Your task to perform on an android device: Clear all items from cart on ebay. Add "panasonic triple a" to the cart on ebay Image 0: 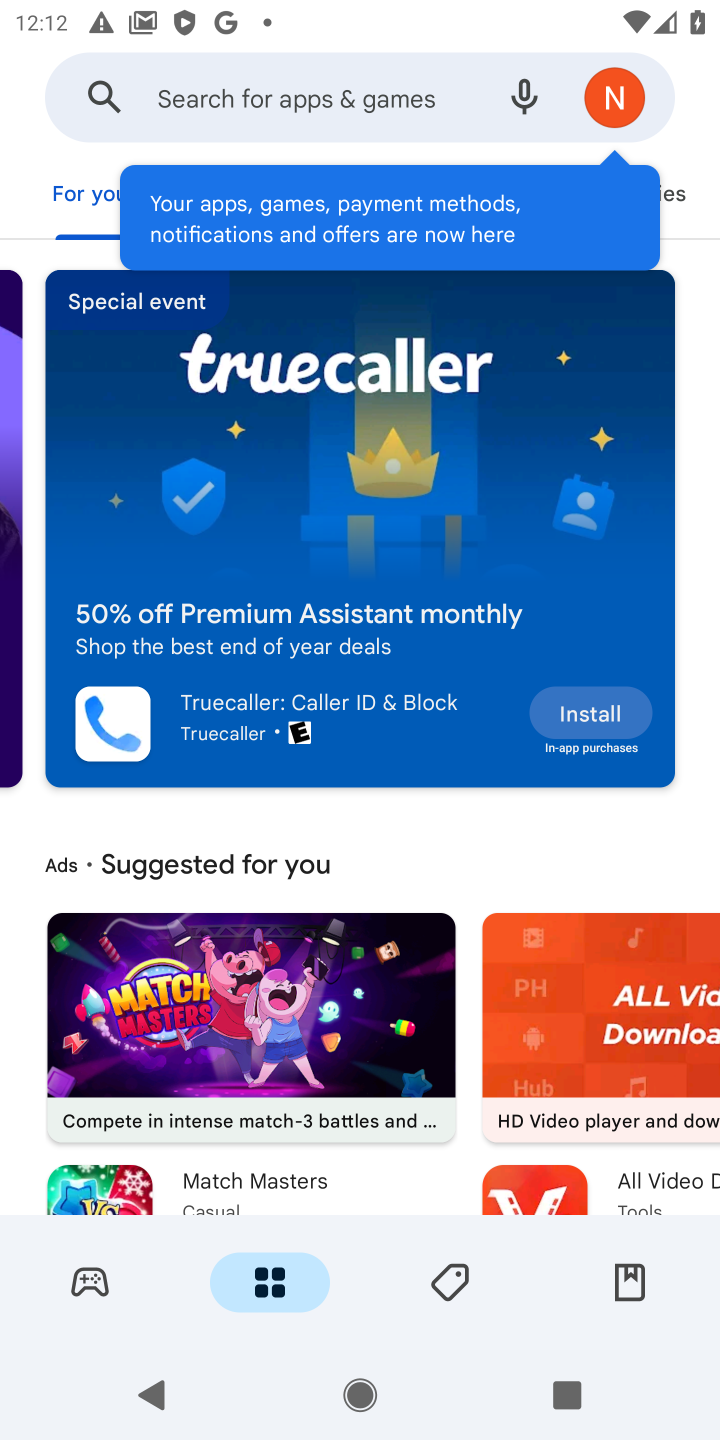
Step 0: press home button
Your task to perform on an android device: Clear all items from cart on ebay. Add "panasonic triple a" to the cart on ebay Image 1: 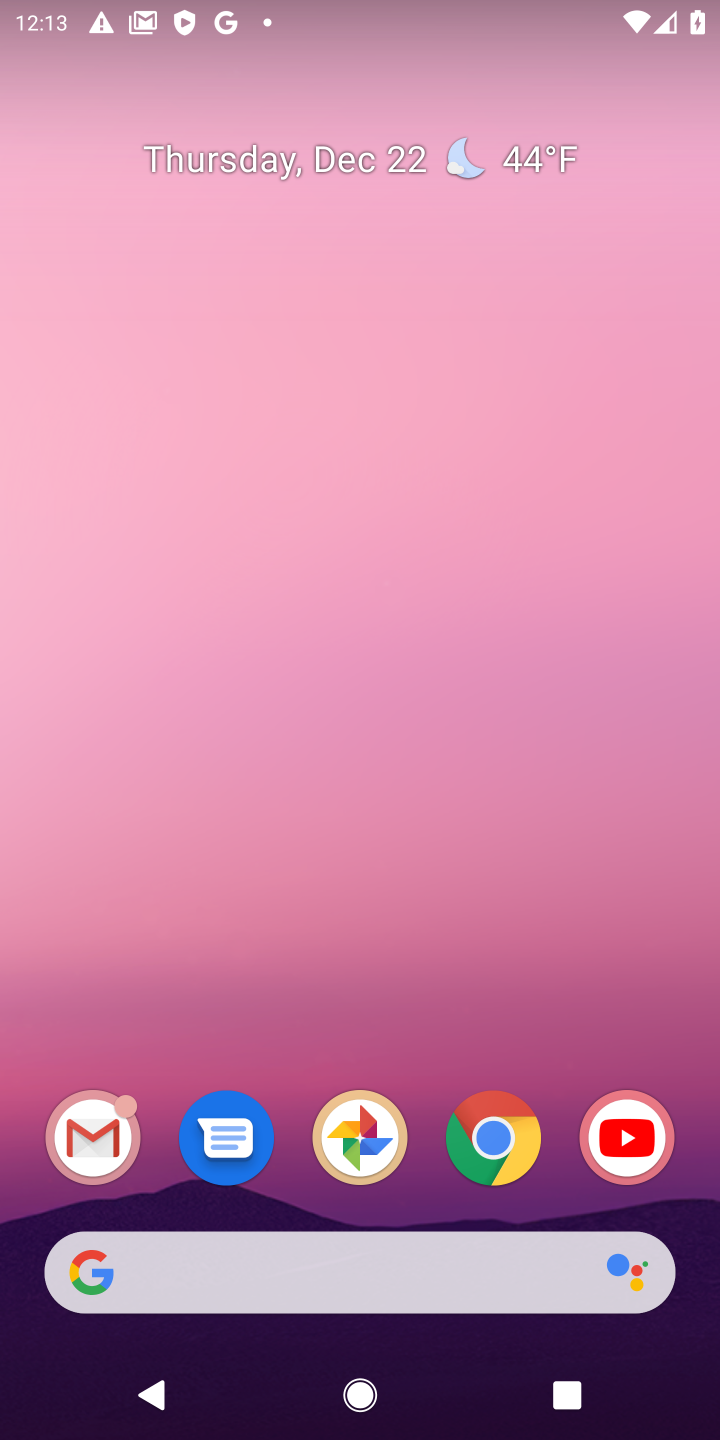
Step 1: click (480, 1170)
Your task to perform on an android device: Clear all items from cart on ebay. Add "panasonic triple a" to the cart on ebay Image 2: 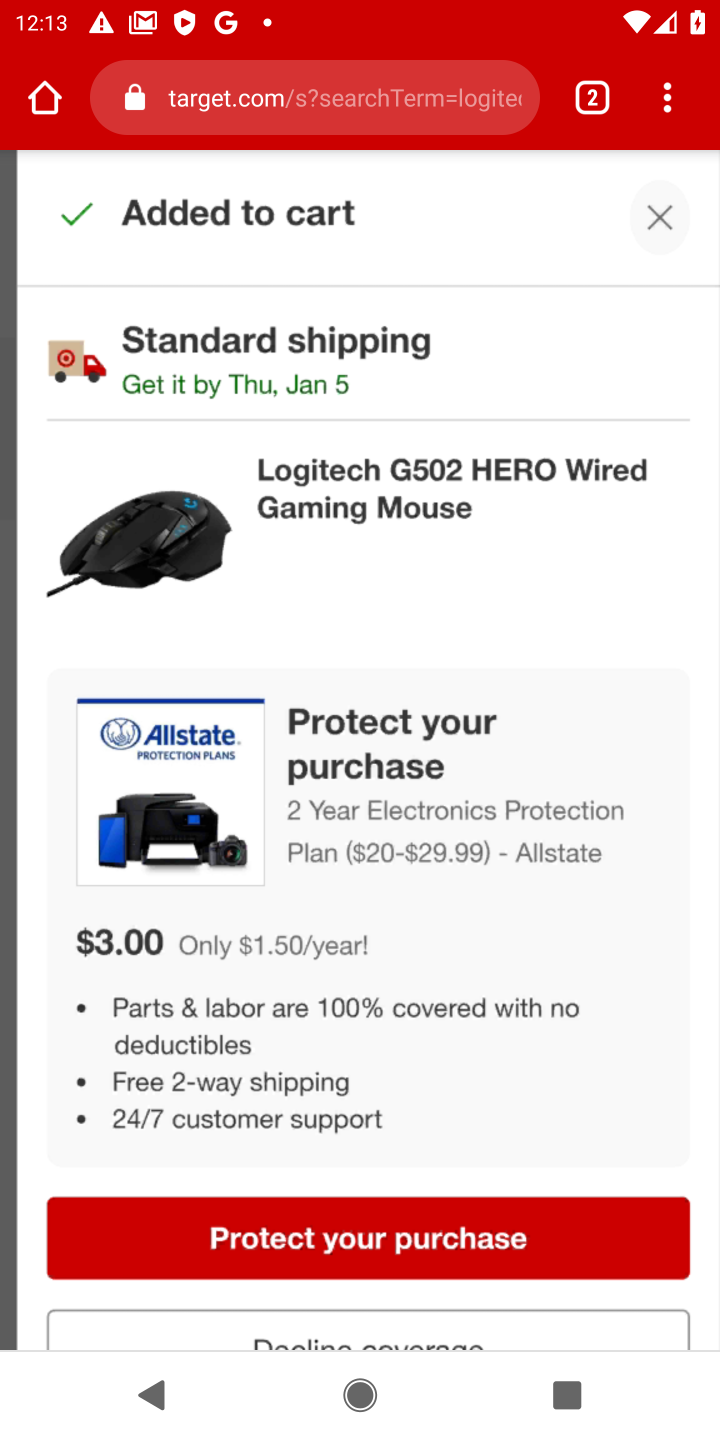
Step 2: click (216, 107)
Your task to perform on an android device: Clear all items from cart on ebay. Add "panasonic triple a" to the cart on ebay Image 3: 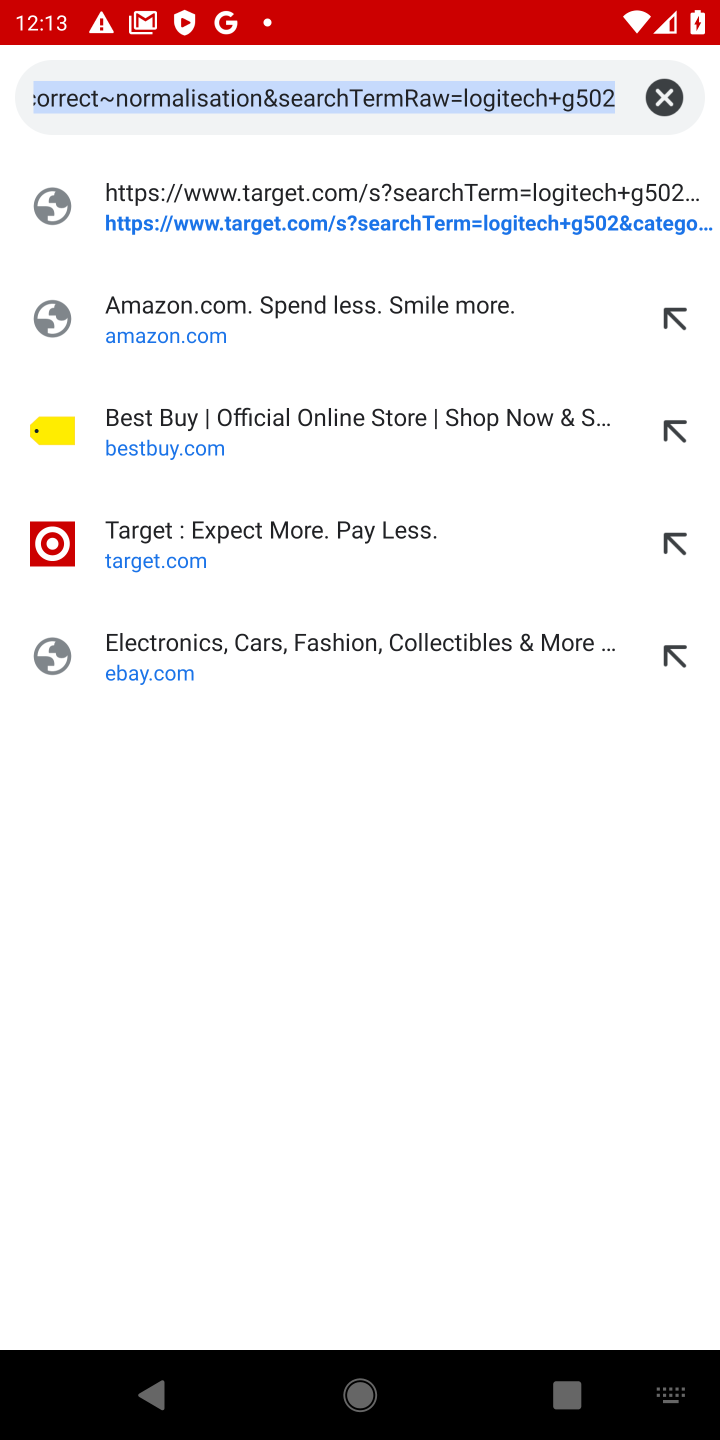
Step 3: click (141, 661)
Your task to perform on an android device: Clear all items from cart on ebay. Add "panasonic triple a" to the cart on ebay Image 4: 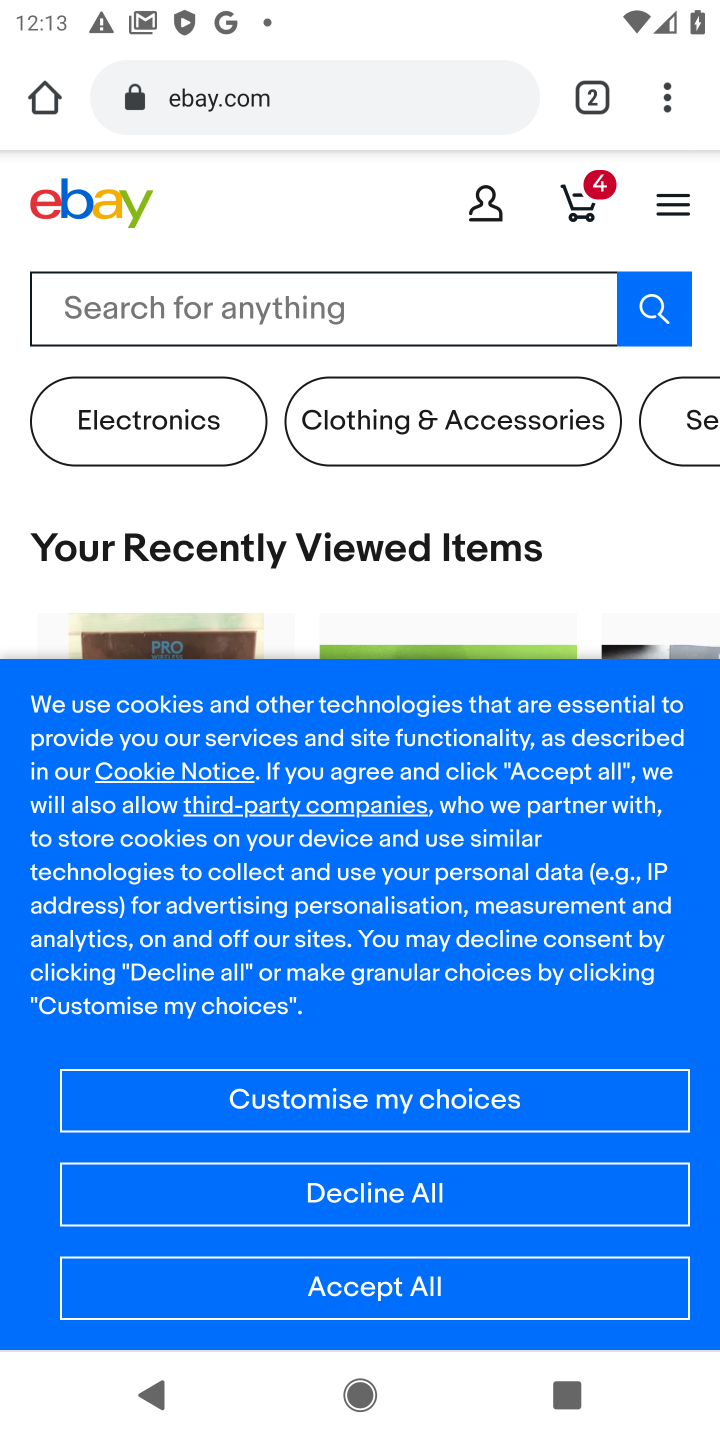
Step 4: click (577, 206)
Your task to perform on an android device: Clear all items from cart on ebay. Add "panasonic triple a" to the cart on ebay Image 5: 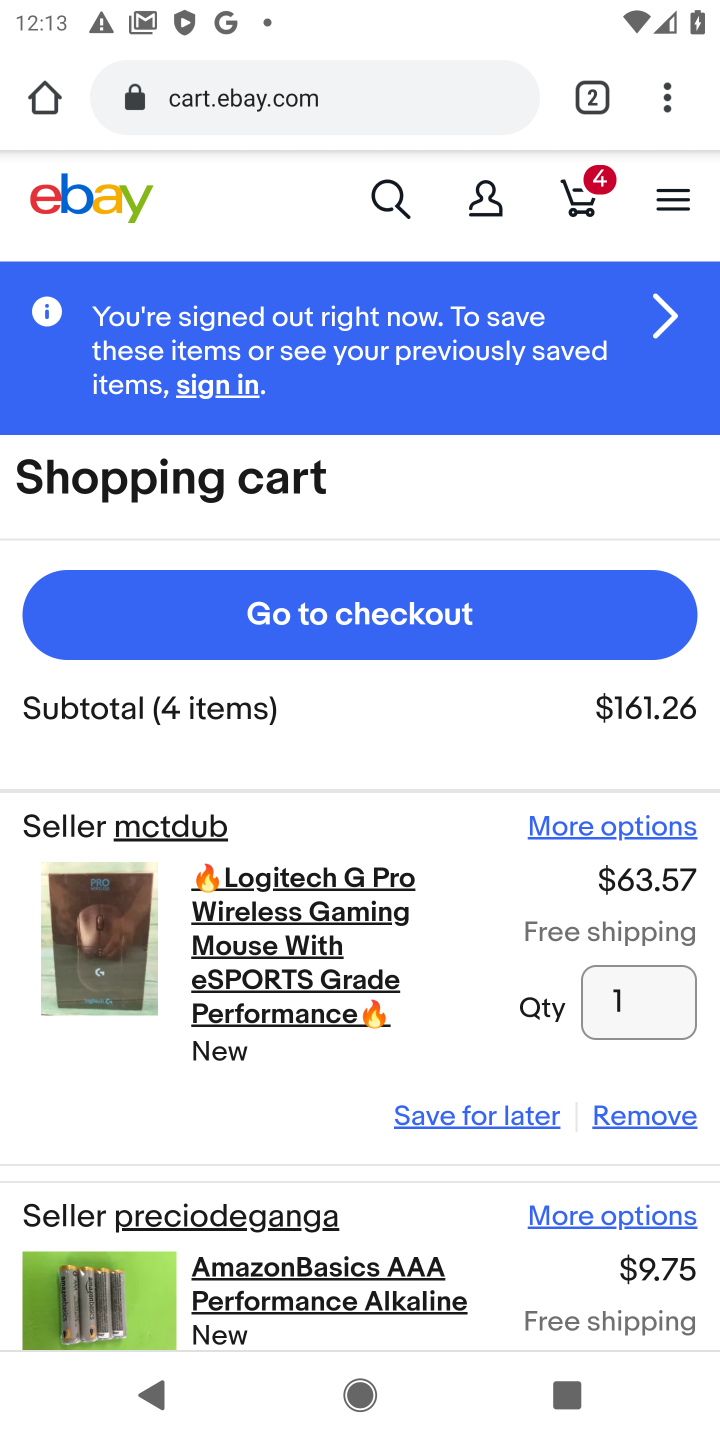
Step 5: click (652, 1116)
Your task to perform on an android device: Clear all items from cart on ebay. Add "panasonic triple a" to the cart on ebay Image 6: 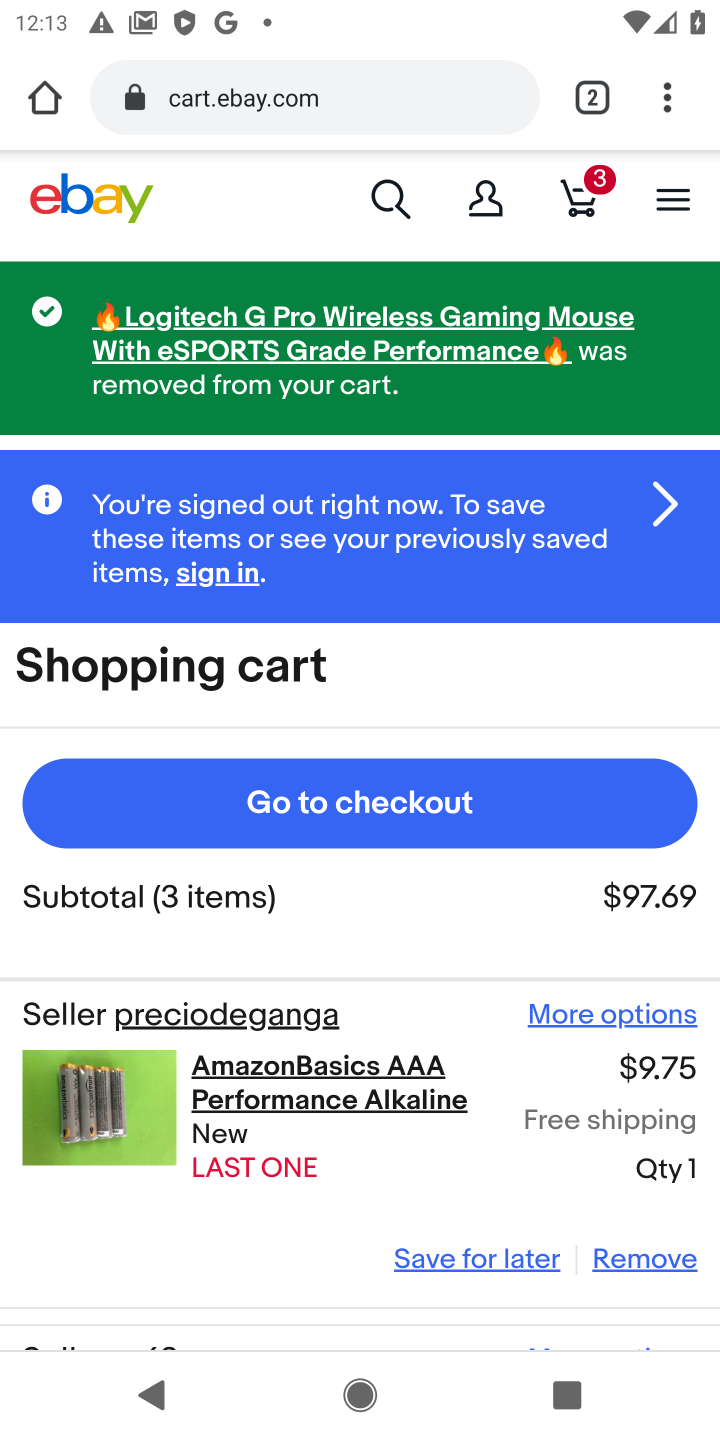
Step 6: click (636, 1250)
Your task to perform on an android device: Clear all items from cart on ebay. Add "panasonic triple a" to the cart on ebay Image 7: 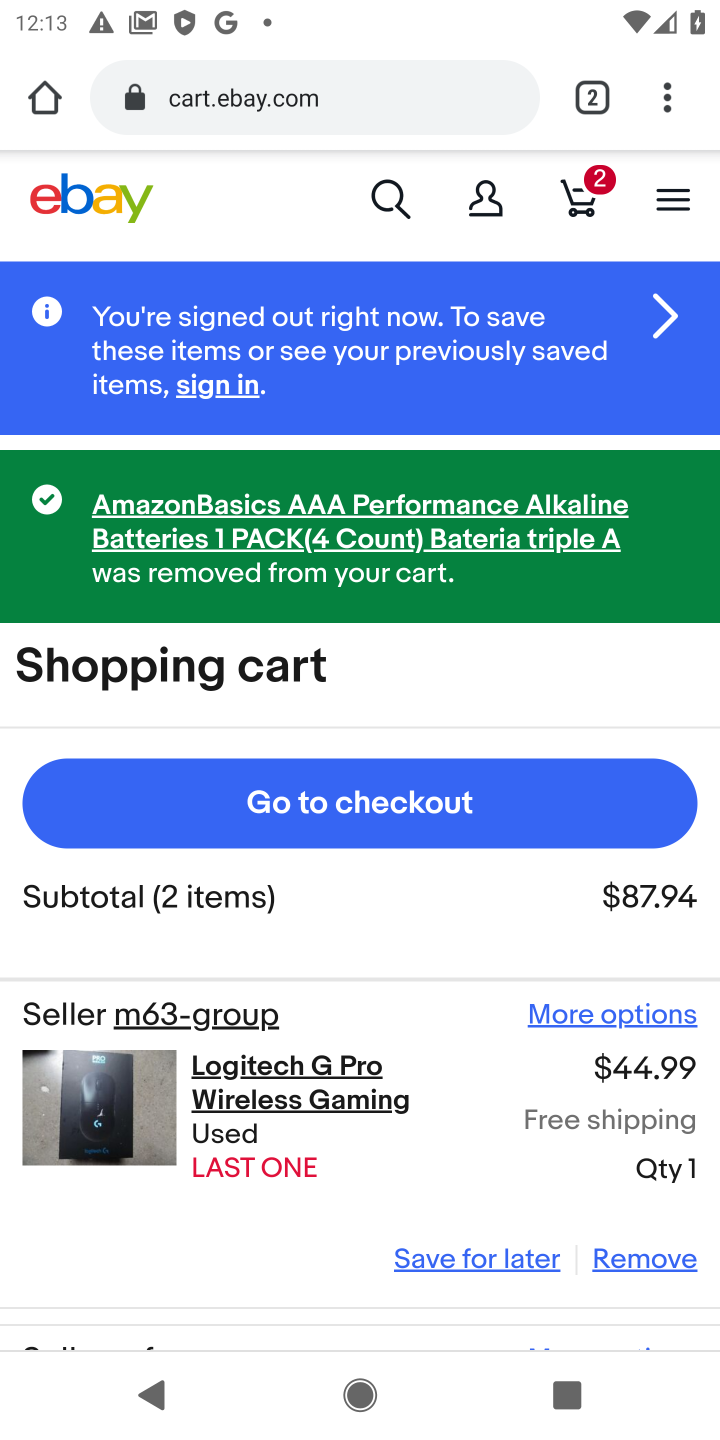
Step 7: click (636, 1265)
Your task to perform on an android device: Clear all items from cart on ebay. Add "panasonic triple a" to the cart on ebay Image 8: 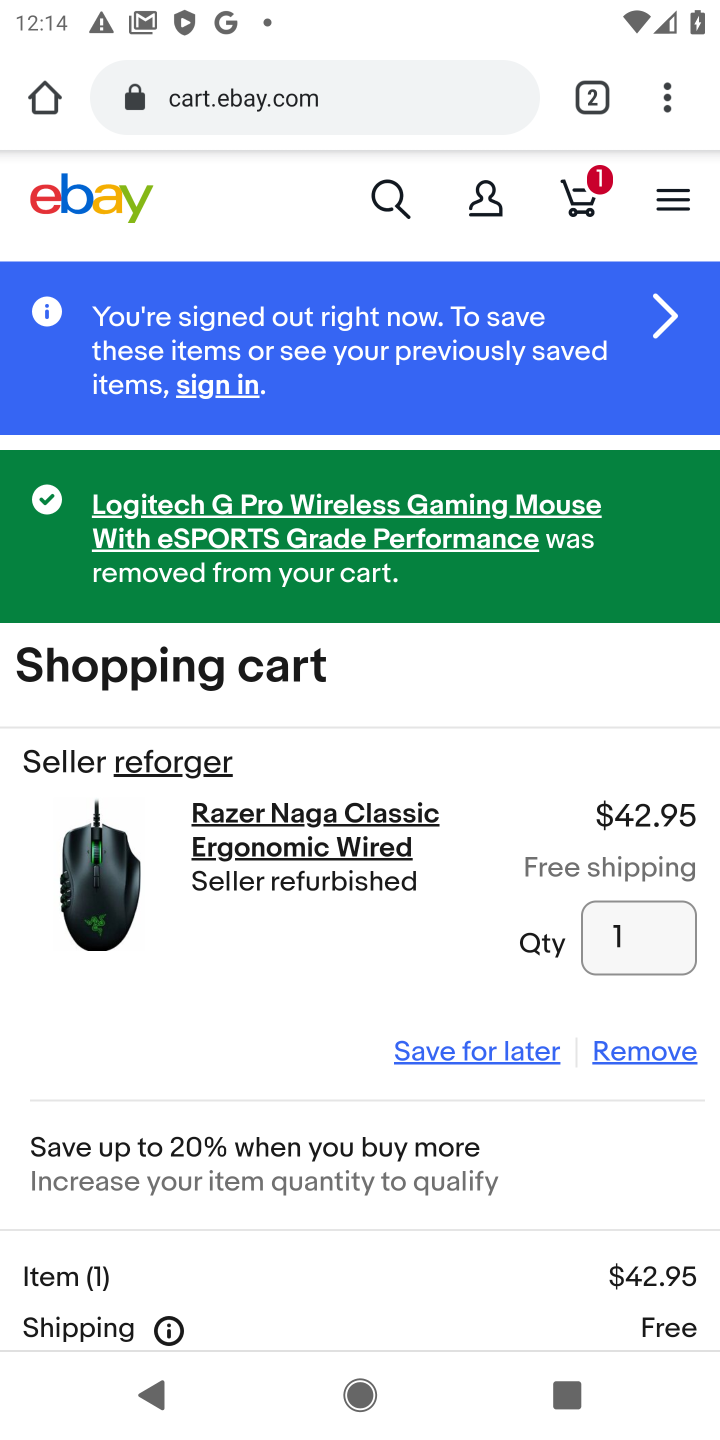
Step 8: click (621, 1052)
Your task to perform on an android device: Clear all items from cart on ebay. Add "panasonic triple a" to the cart on ebay Image 9: 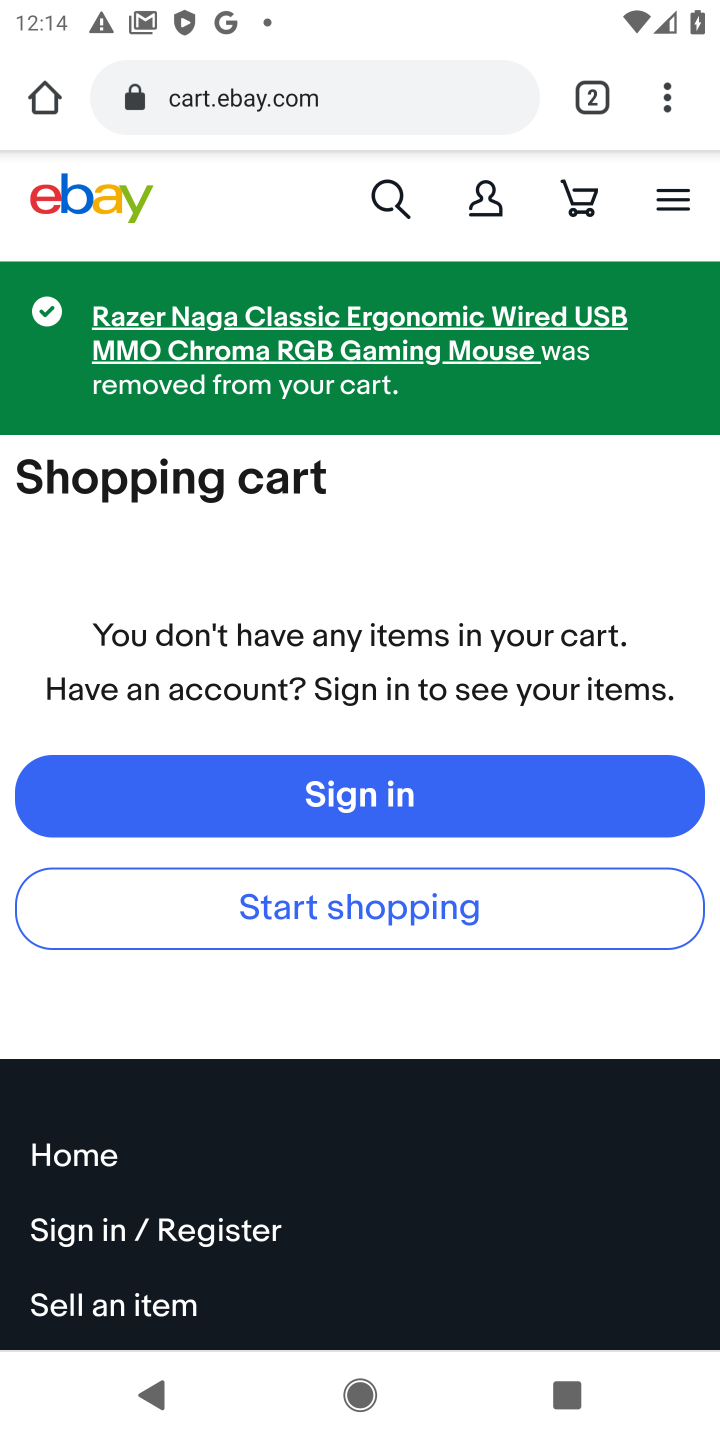
Step 9: click (392, 207)
Your task to perform on an android device: Clear all items from cart on ebay. Add "panasonic triple a" to the cart on ebay Image 10: 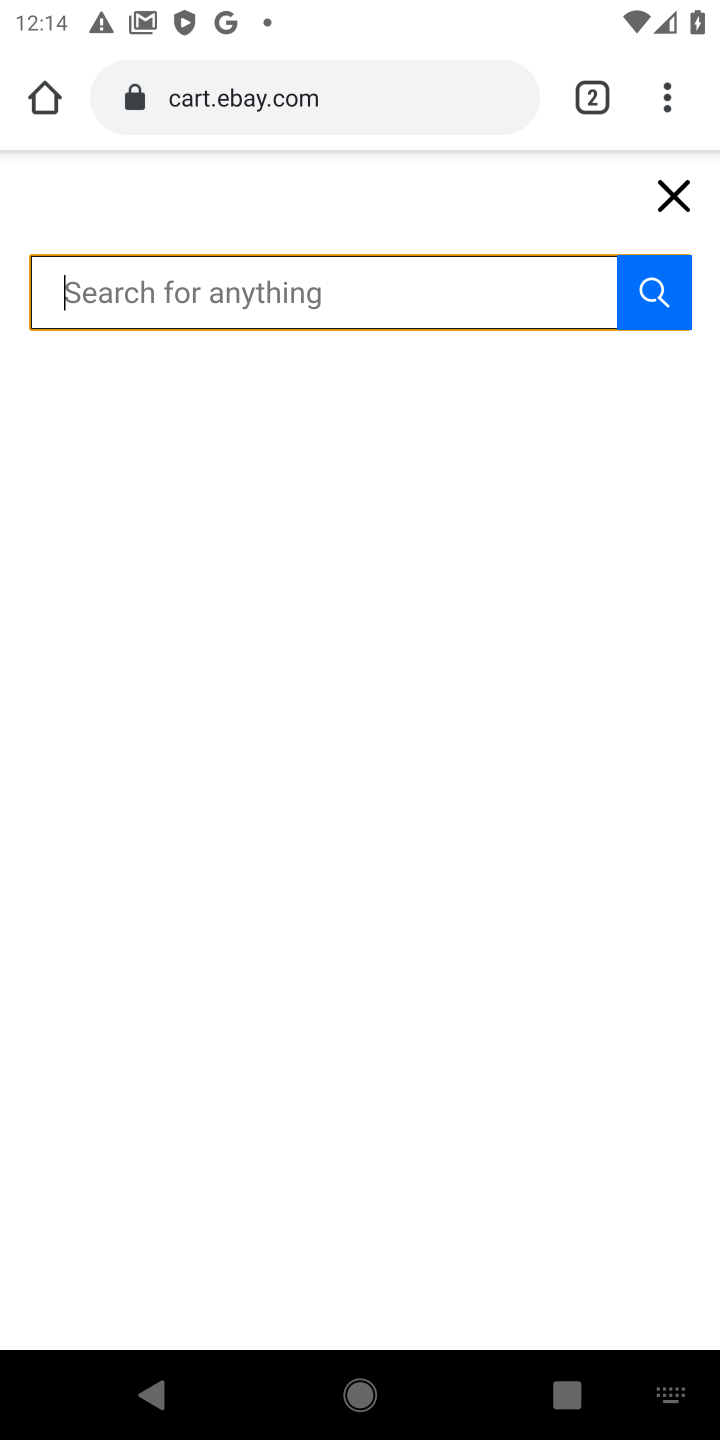
Step 10: type "panasonic triple a"
Your task to perform on an android device: Clear all items from cart on ebay. Add "panasonic triple a" to the cart on ebay Image 11: 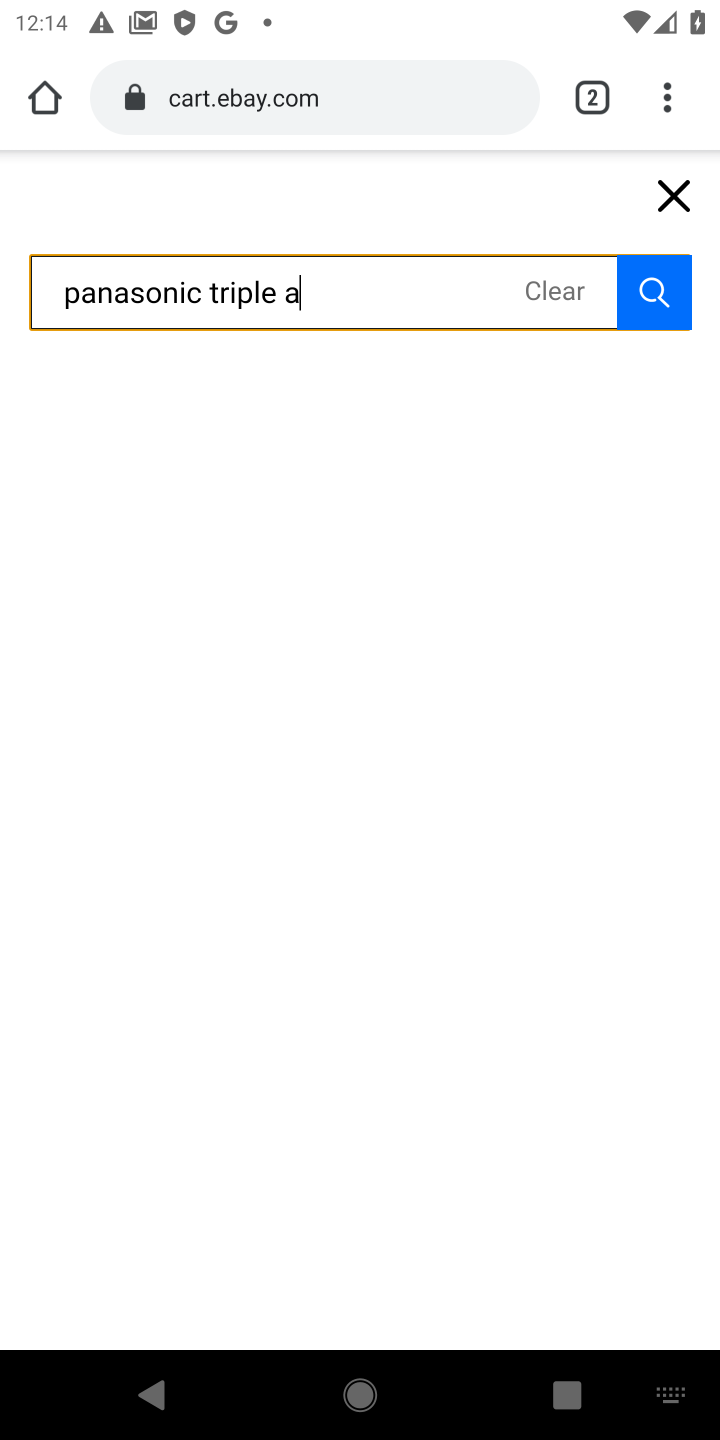
Step 11: click (649, 304)
Your task to perform on an android device: Clear all items from cart on ebay. Add "panasonic triple a" to the cart on ebay Image 12: 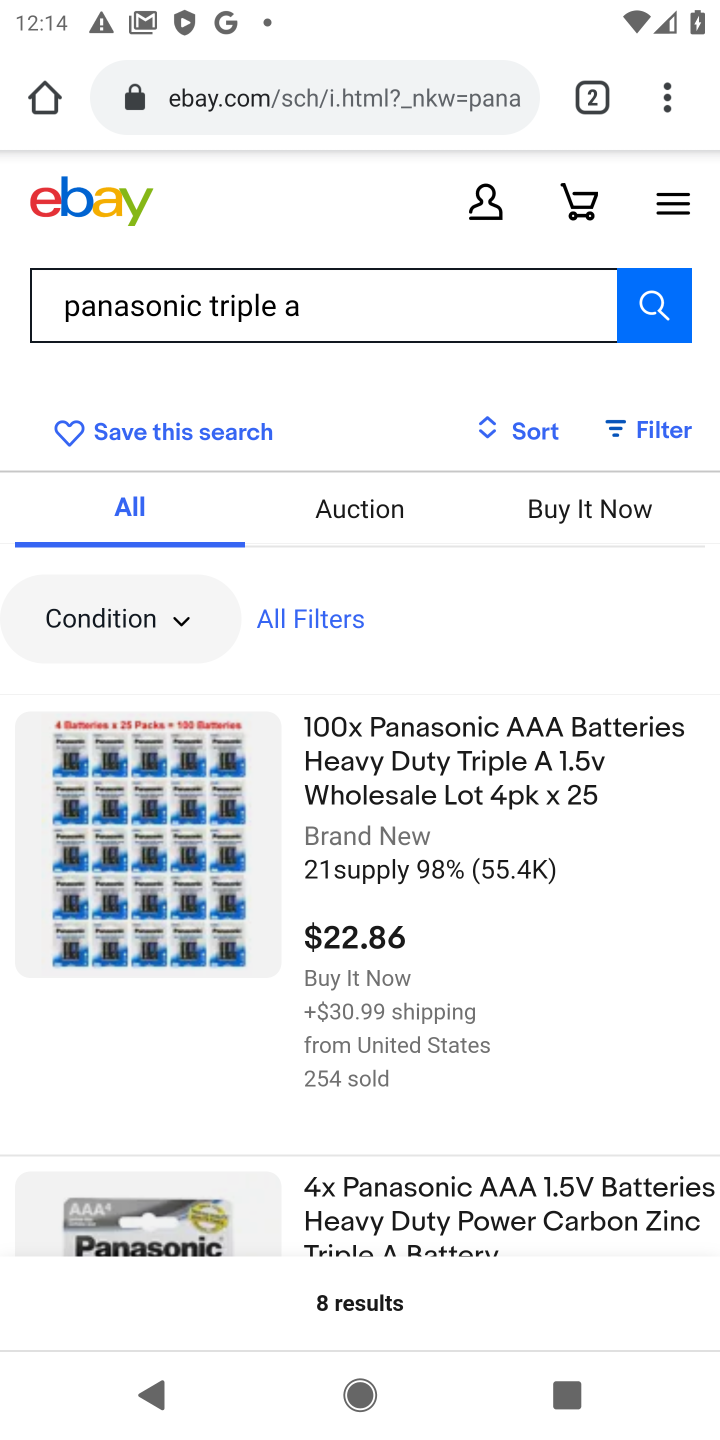
Step 12: click (410, 796)
Your task to perform on an android device: Clear all items from cart on ebay. Add "panasonic triple a" to the cart on ebay Image 13: 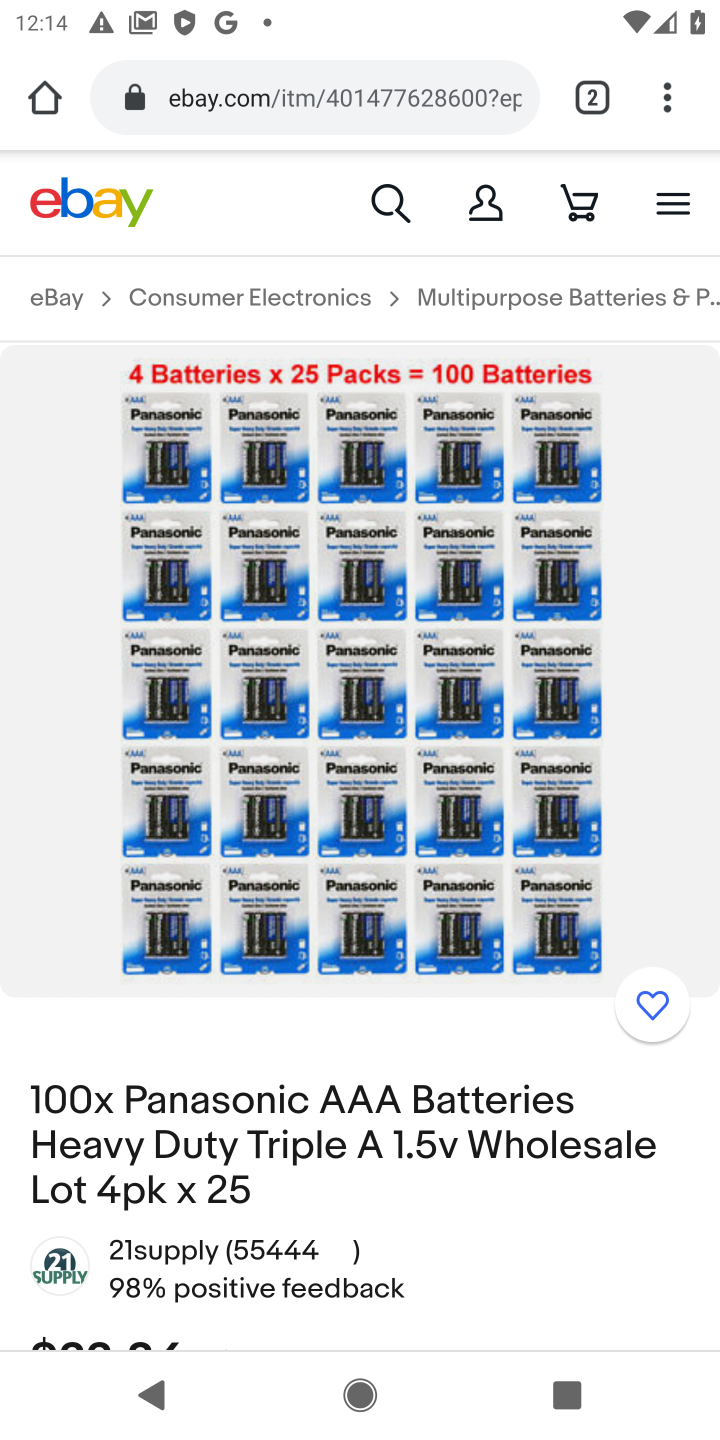
Step 13: drag from (407, 1072) to (409, 418)
Your task to perform on an android device: Clear all items from cart on ebay. Add "panasonic triple a" to the cart on ebay Image 14: 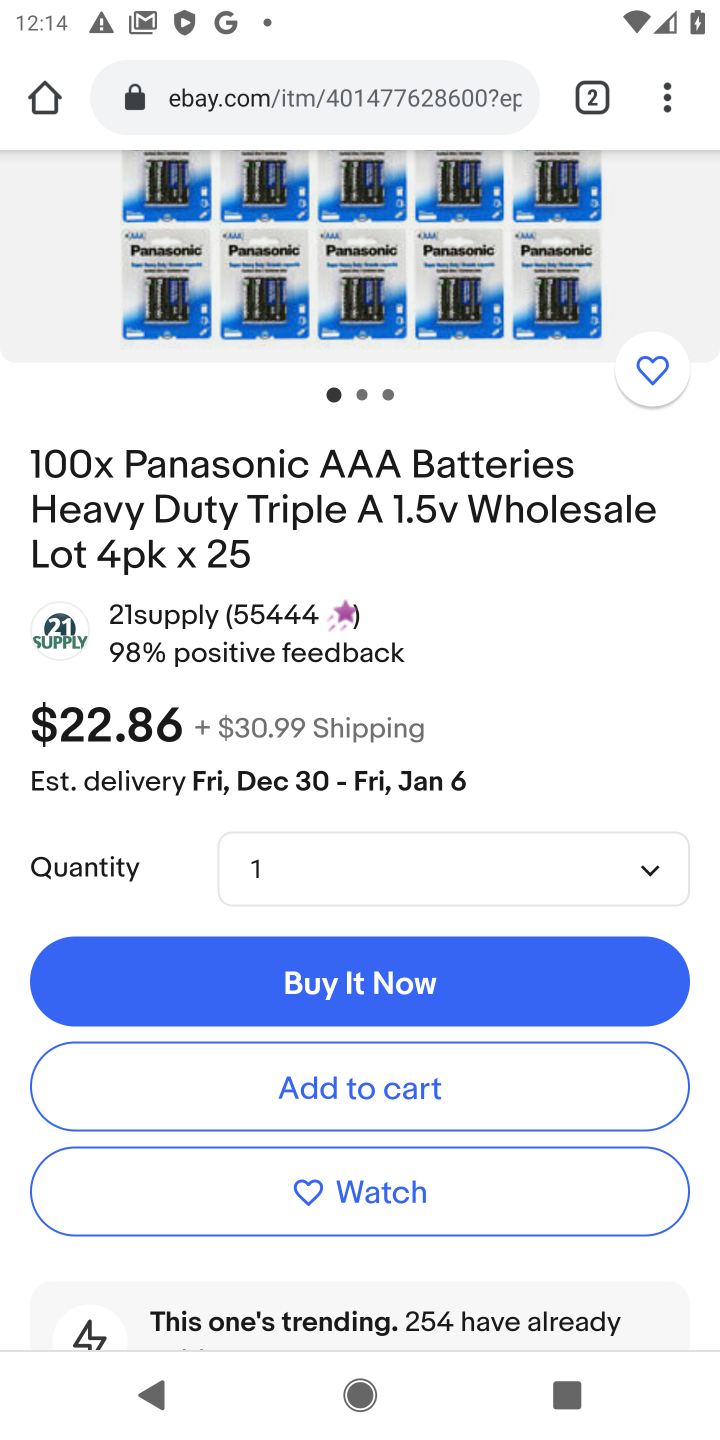
Step 14: click (333, 1097)
Your task to perform on an android device: Clear all items from cart on ebay. Add "panasonic triple a" to the cart on ebay Image 15: 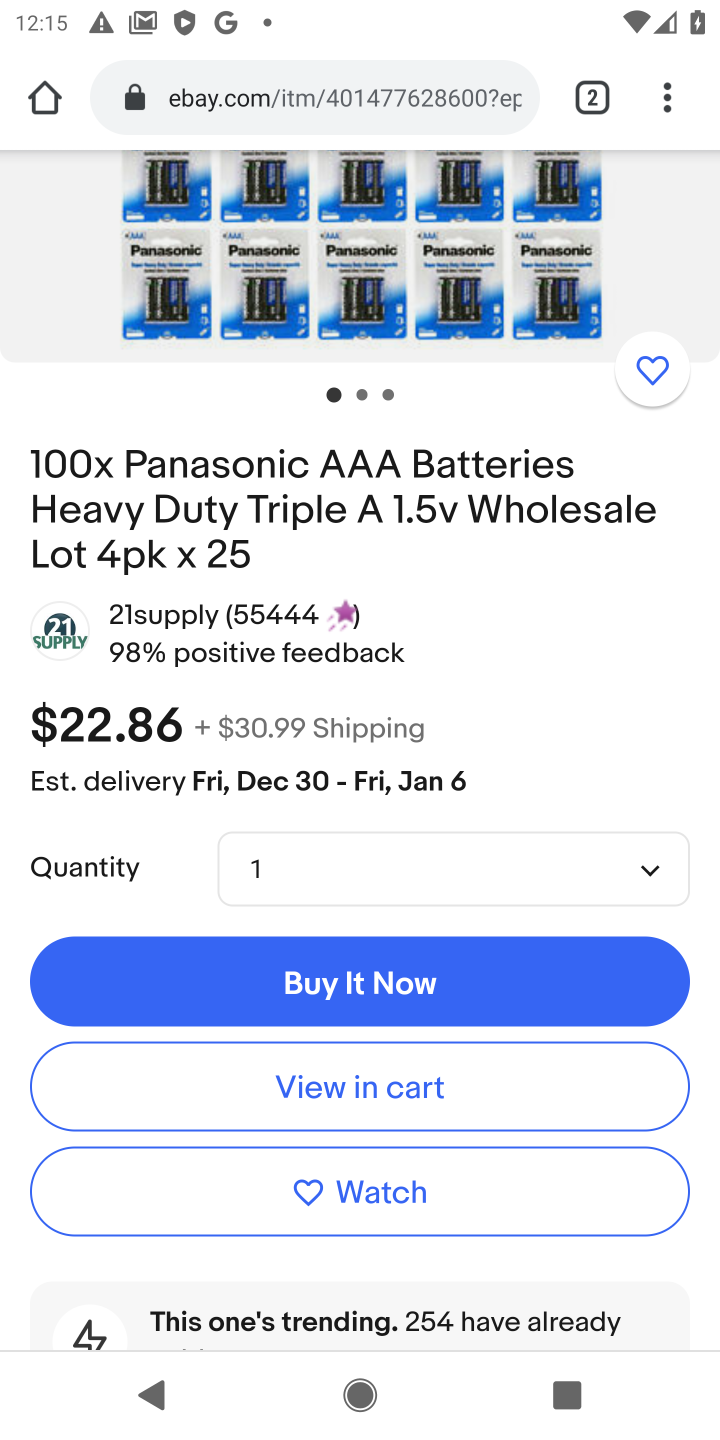
Step 15: task complete